Your task to perform on an android device: Go to display settings Image 0: 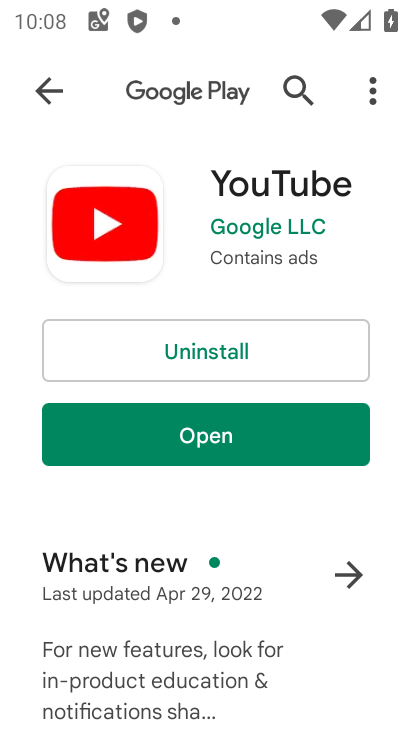
Step 0: press home button
Your task to perform on an android device: Go to display settings Image 1: 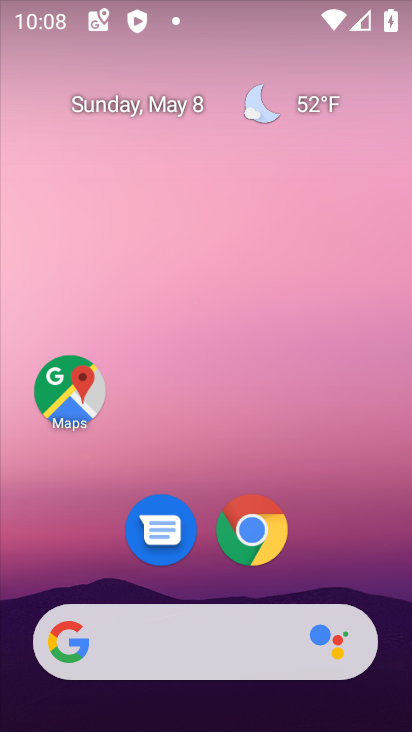
Step 1: drag from (389, 534) to (400, 142)
Your task to perform on an android device: Go to display settings Image 2: 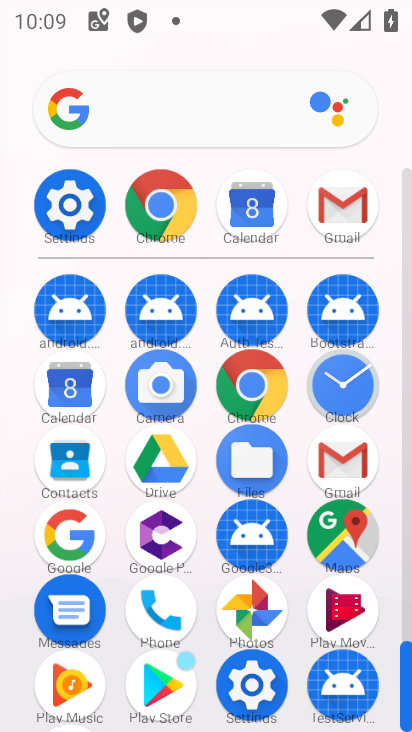
Step 2: click (245, 680)
Your task to perform on an android device: Go to display settings Image 3: 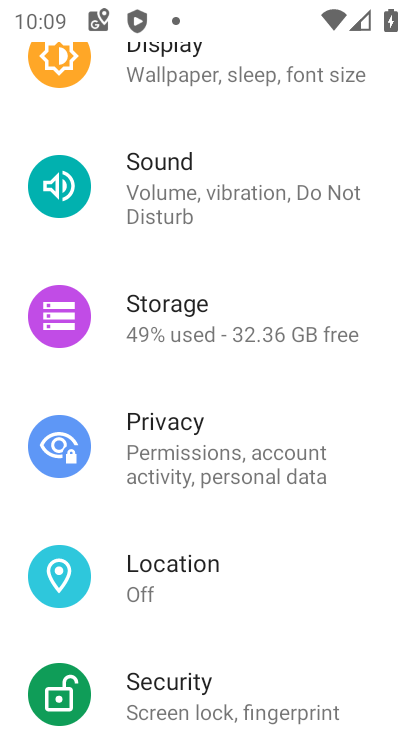
Step 3: drag from (219, 130) to (229, 449)
Your task to perform on an android device: Go to display settings Image 4: 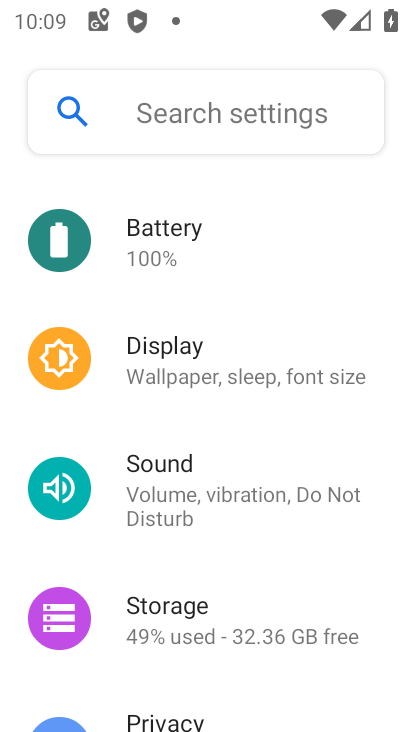
Step 4: click (207, 366)
Your task to perform on an android device: Go to display settings Image 5: 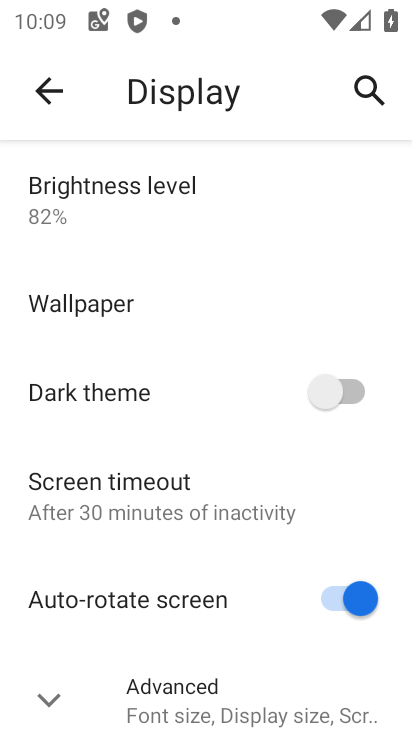
Step 5: task complete